Your task to perform on an android device: turn off airplane mode Image 0: 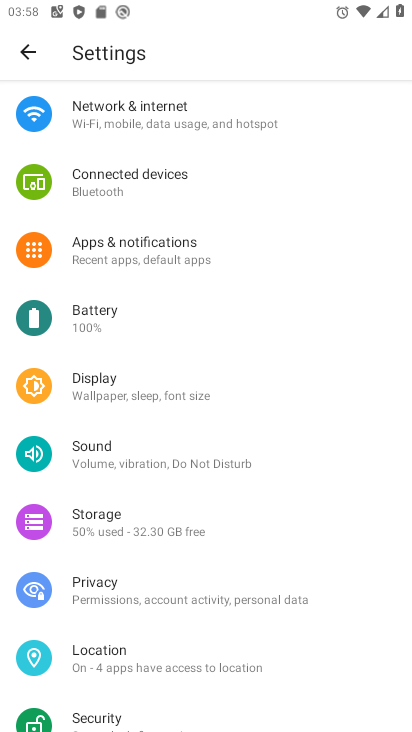
Step 0: click (225, 127)
Your task to perform on an android device: turn off airplane mode Image 1: 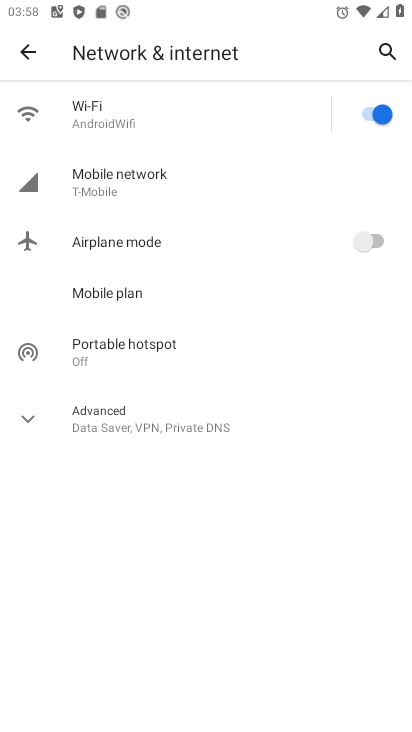
Step 1: click (375, 106)
Your task to perform on an android device: turn off airplane mode Image 2: 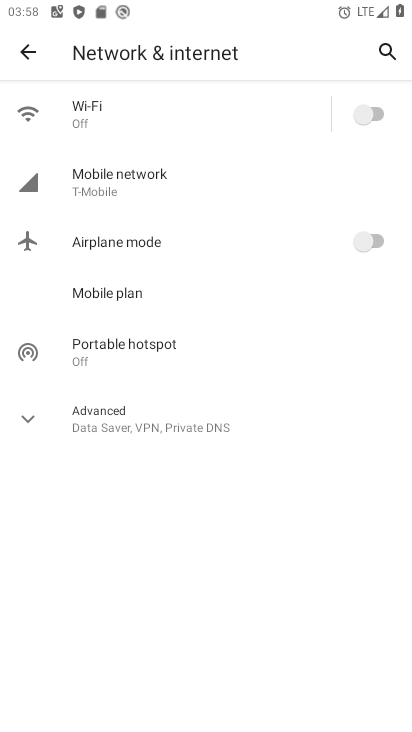
Step 2: task complete